Your task to perform on an android device: turn off notifications settings in the gmail app Image 0: 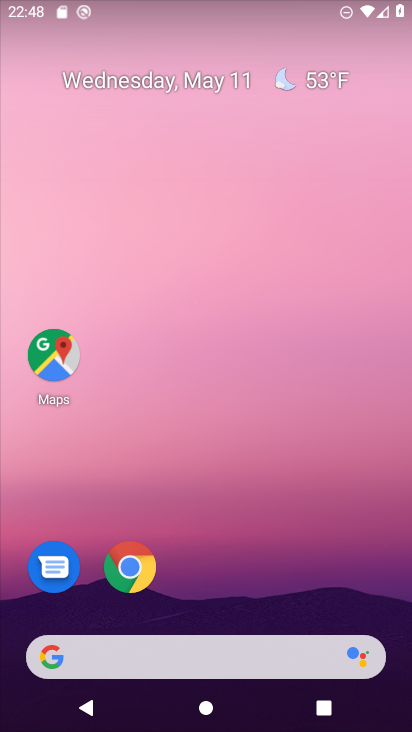
Step 0: drag from (180, 708) to (256, 129)
Your task to perform on an android device: turn off notifications settings in the gmail app Image 1: 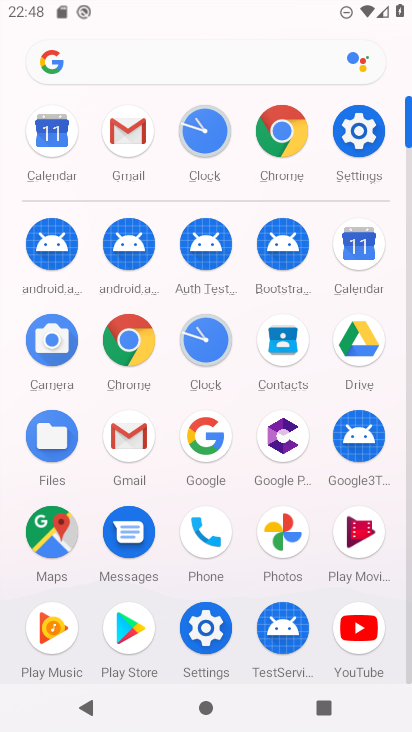
Step 1: click (106, 141)
Your task to perform on an android device: turn off notifications settings in the gmail app Image 2: 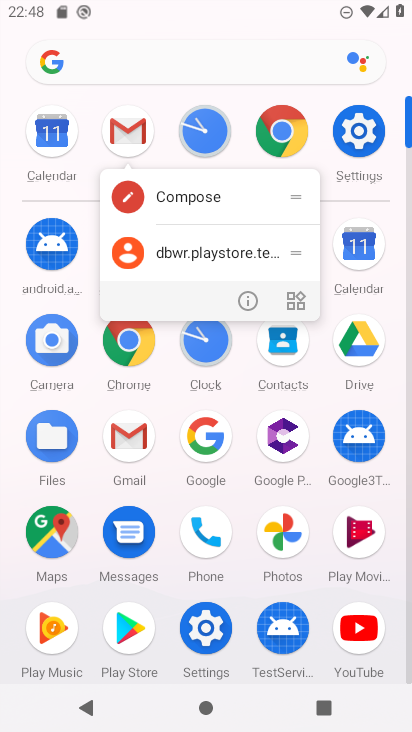
Step 2: click (249, 306)
Your task to perform on an android device: turn off notifications settings in the gmail app Image 3: 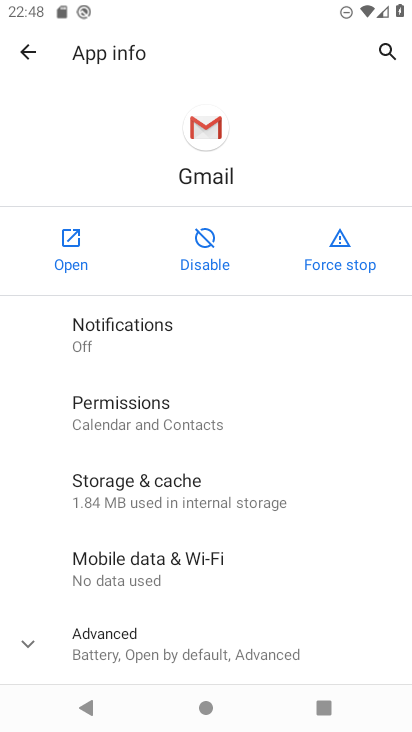
Step 3: click (188, 335)
Your task to perform on an android device: turn off notifications settings in the gmail app Image 4: 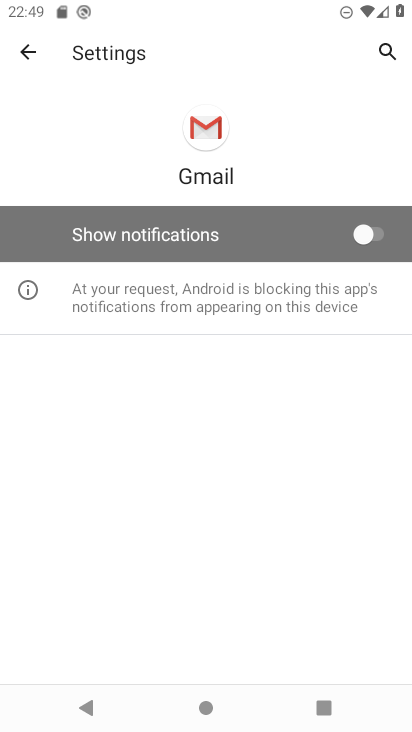
Step 4: task complete